Your task to perform on an android device: Go to Reddit.com Image 0: 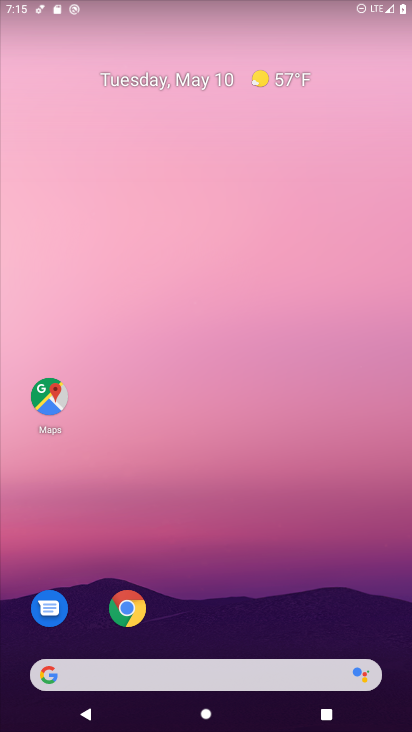
Step 0: drag from (292, 616) to (227, 84)
Your task to perform on an android device: Go to Reddit.com Image 1: 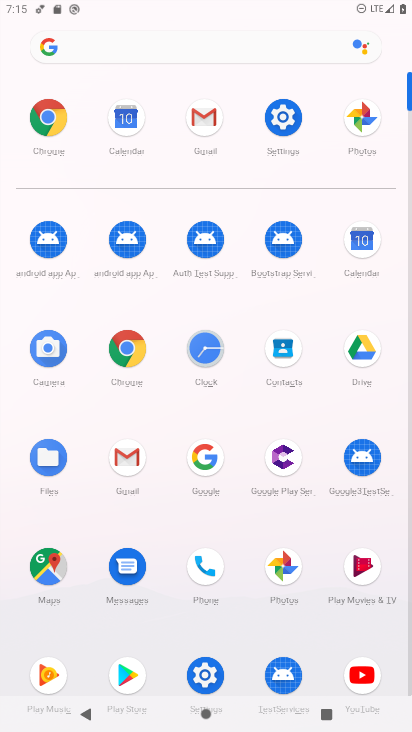
Step 1: click (123, 350)
Your task to perform on an android device: Go to Reddit.com Image 2: 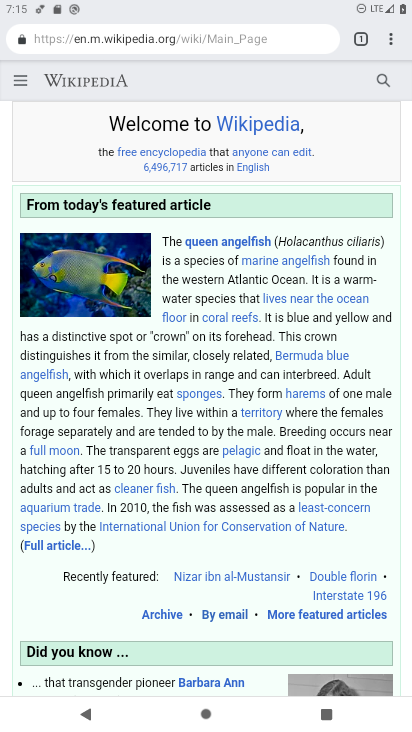
Step 2: press back button
Your task to perform on an android device: Go to Reddit.com Image 3: 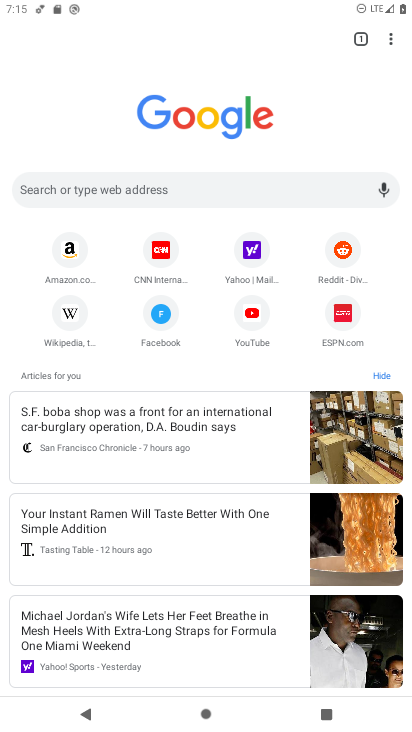
Step 3: click (345, 244)
Your task to perform on an android device: Go to Reddit.com Image 4: 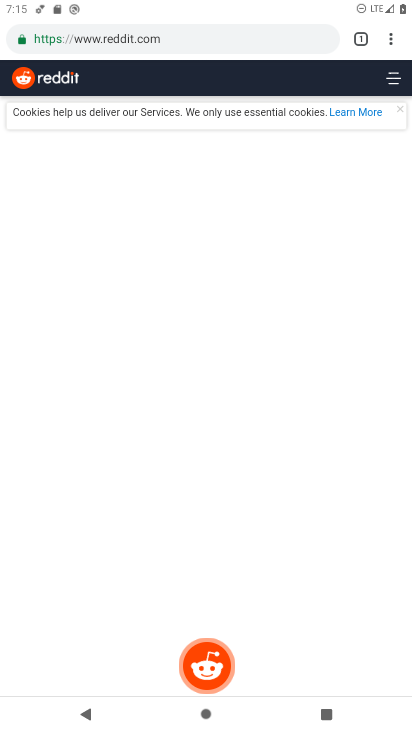
Step 4: task complete